Your task to perform on an android device: Open CNN.com Image 0: 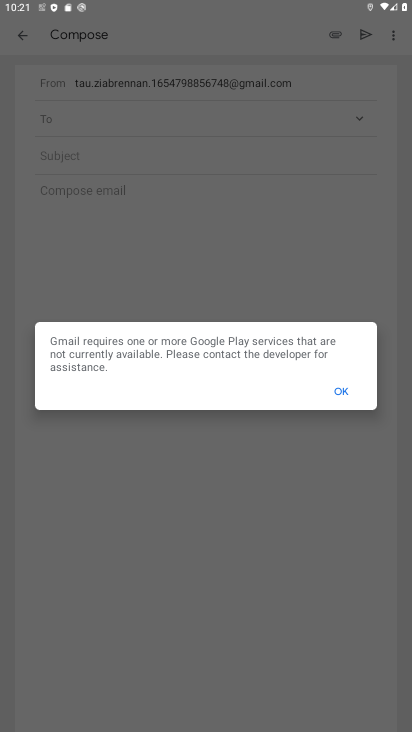
Step 0: press home button
Your task to perform on an android device: Open CNN.com Image 1: 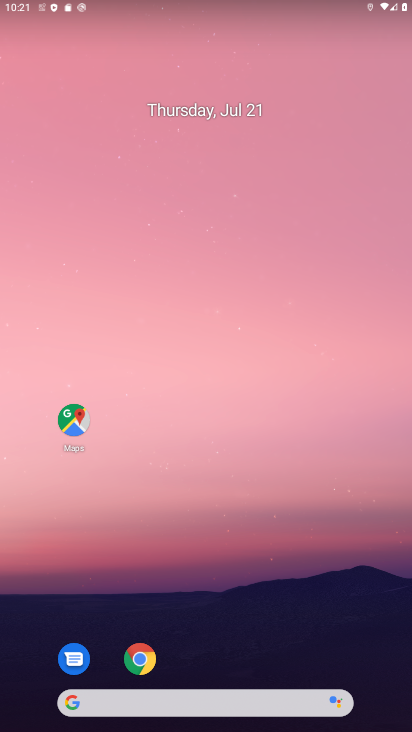
Step 1: click (149, 647)
Your task to perform on an android device: Open CNN.com Image 2: 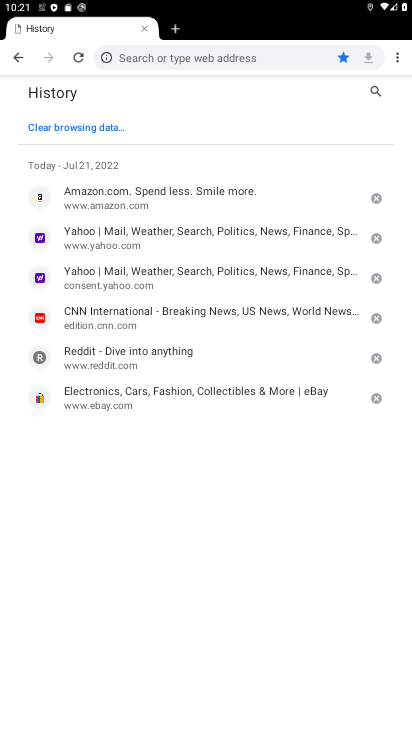
Step 2: click (174, 25)
Your task to perform on an android device: Open CNN.com Image 3: 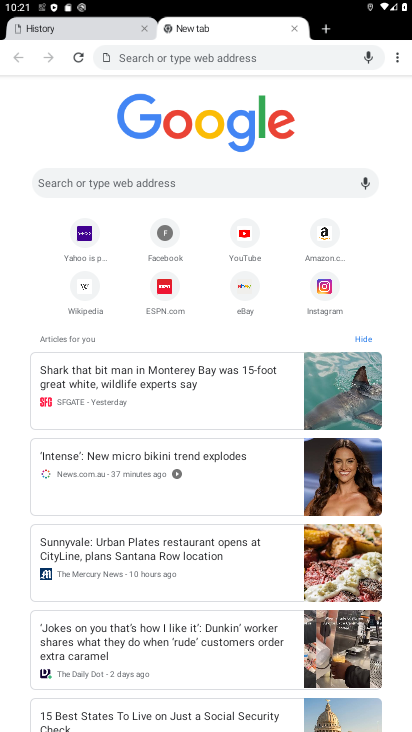
Step 3: click (150, 58)
Your task to perform on an android device: Open CNN.com Image 4: 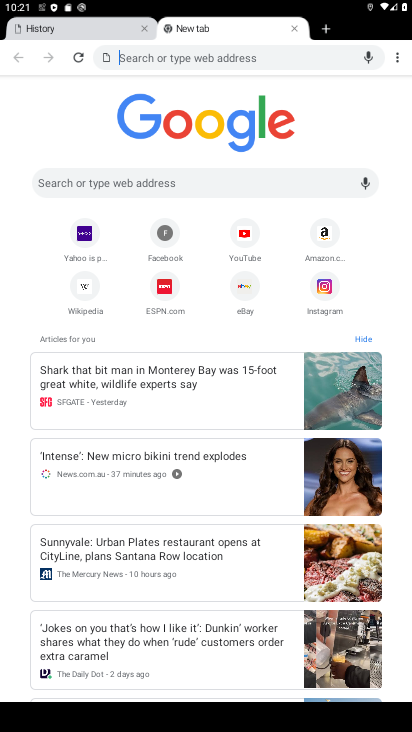
Step 4: type "cnn"
Your task to perform on an android device: Open CNN.com Image 5: 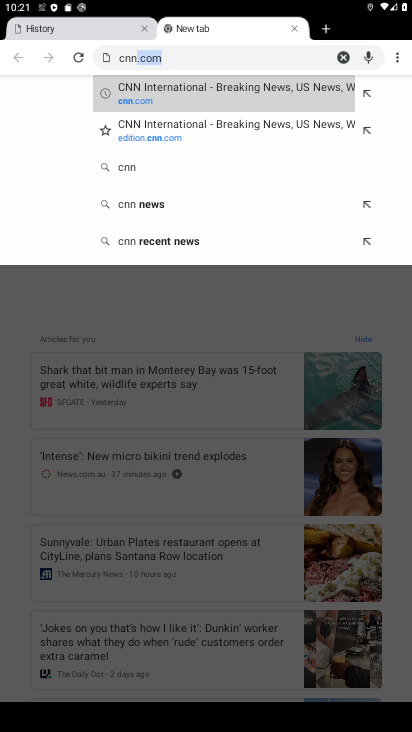
Step 5: click (275, 90)
Your task to perform on an android device: Open CNN.com Image 6: 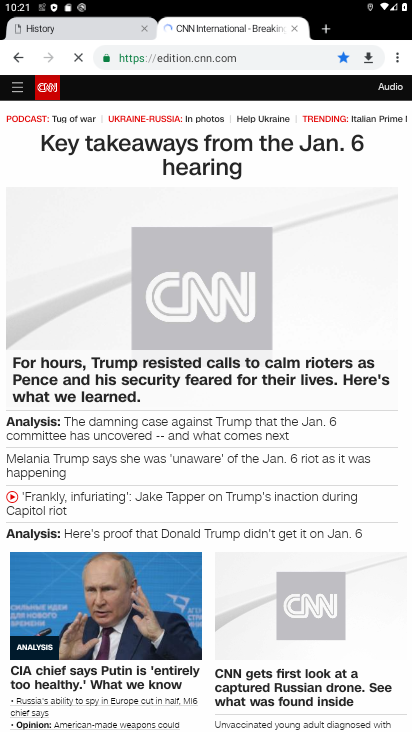
Step 6: task complete